Your task to perform on an android device: Open the phone app and click the voicemail tab. Image 0: 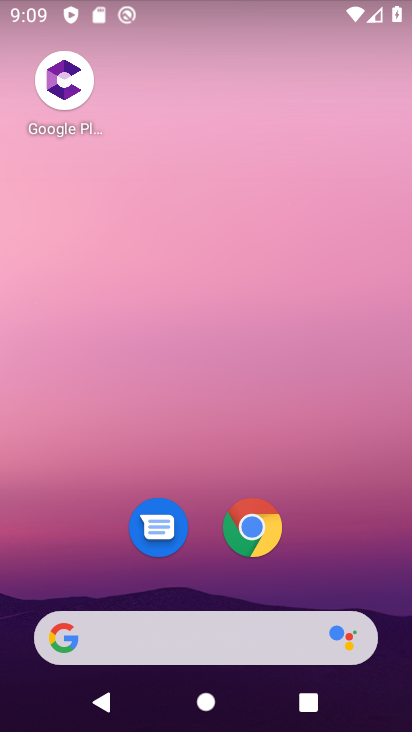
Step 0: drag from (386, 705) to (360, 237)
Your task to perform on an android device: Open the phone app and click the voicemail tab. Image 1: 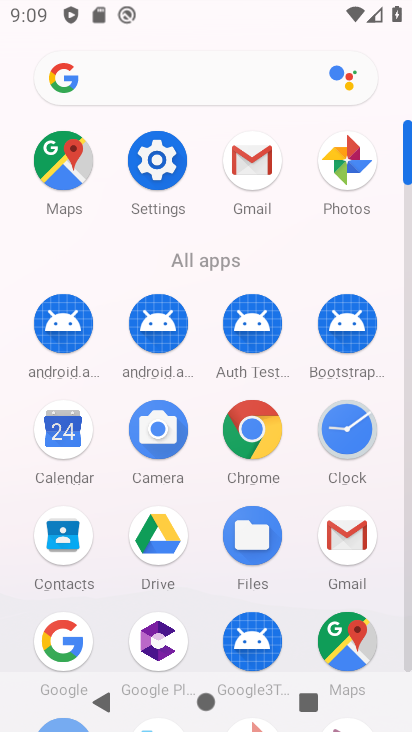
Step 1: drag from (202, 645) to (159, 316)
Your task to perform on an android device: Open the phone app and click the voicemail tab. Image 2: 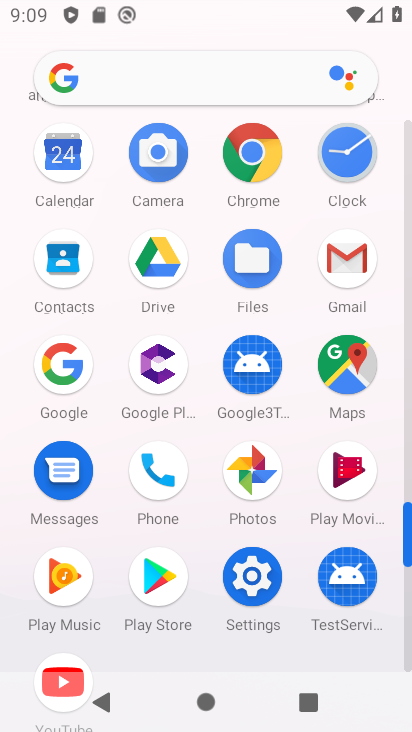
Step 2: click (155, 477)
Your task to perform on an android device: Open the phone app and click the voicemail tab. Image 3: 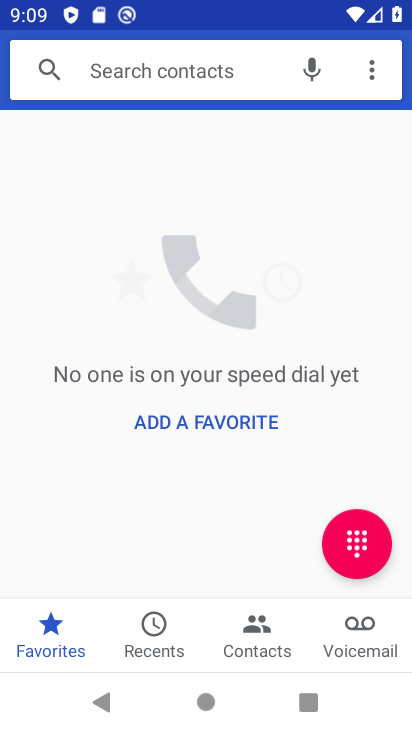
Step 3: click (352, 622)
Your task to perform on an android device: Open the phone app and click the voicemail tab. Image 4: 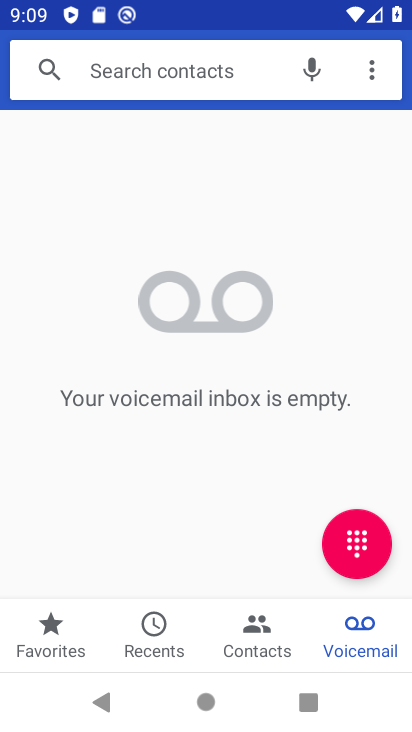
Step 4: task complete